Your task to perform on an android device: turn vacation reply on in the gmail app Image 0: 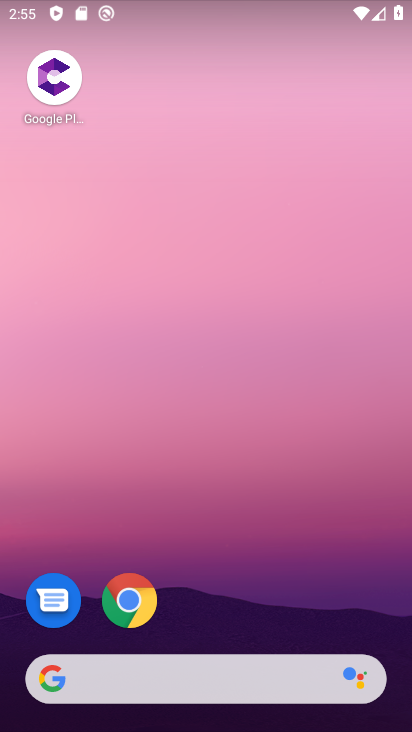
Step 0: drag from (325, 676) to (112, 12)
Your task to perform on an android device: turn vacation reply on in the gmail app Image 1: 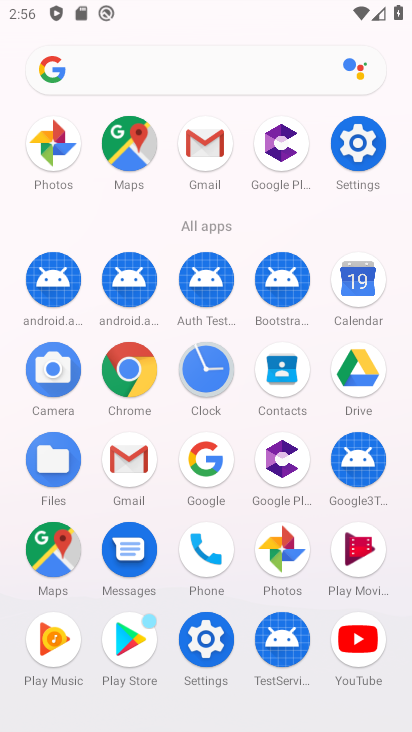
Step 1: click (131, 451)
Your task to perform on an android device: turn vacation reply on in the gmail app Image 2: 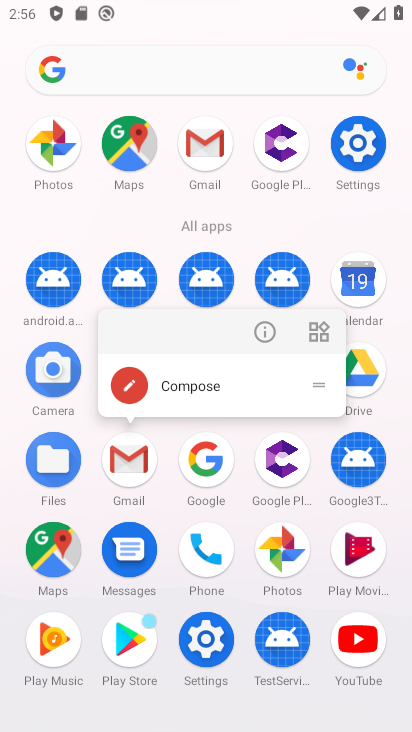
Step 2: click (136, 451)
Your task to perform on an android device: turn vacation reply on in the gmail app Image 3: 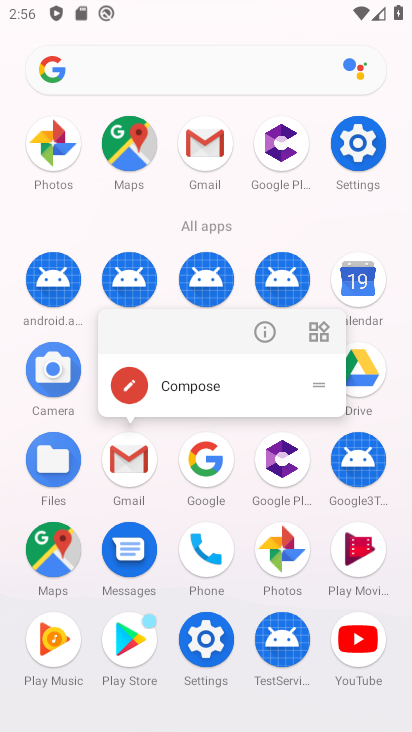
Step 3: click (133, 450)
Your task to perform on an android device: turn vacation reply on in the gmail app Image 4: 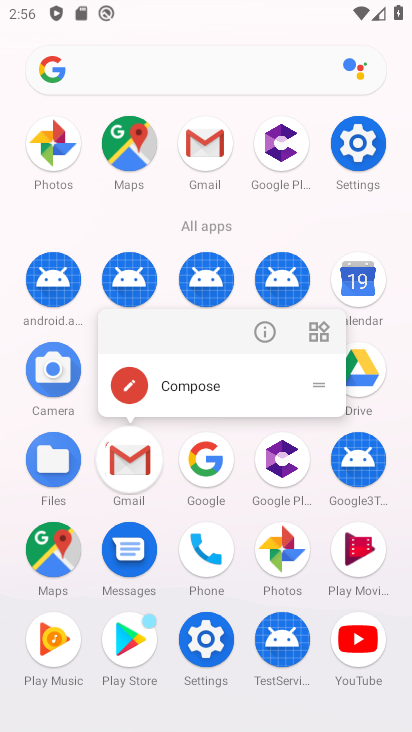
Step 4: click (134, 438)
Your task to perform on an android device: turn vacation reply on in the gmail app Image 5: 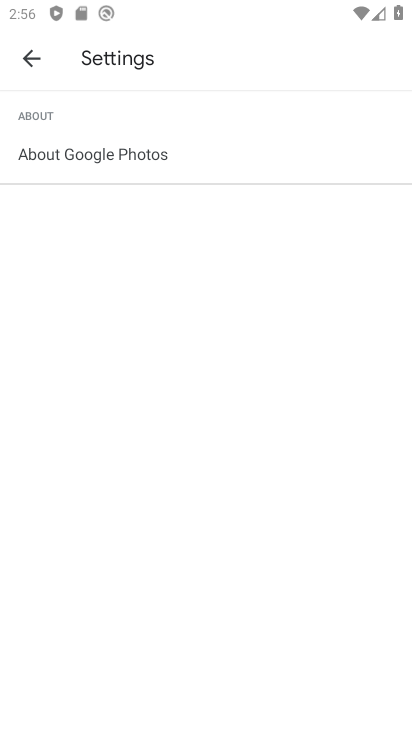
Step 5: drag from (141, 458) to (115, 416)
Your task to perform on an android device: turn vacation reply on in the gmail app Image 6: 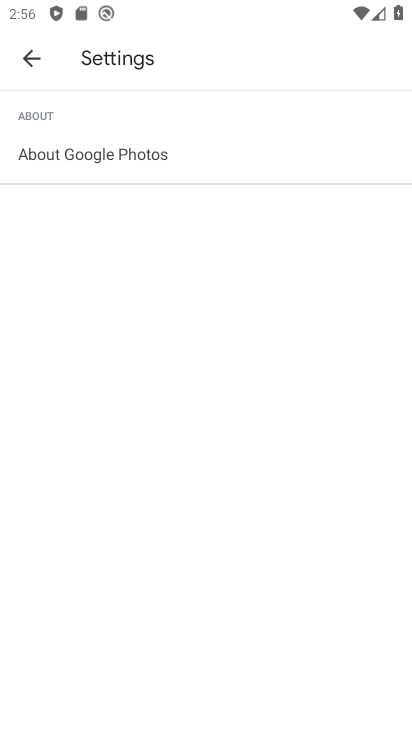
Step 6: click (27, 56)
Your task to perform on an android device: turn vacation reply on in the gmail app Image 7: 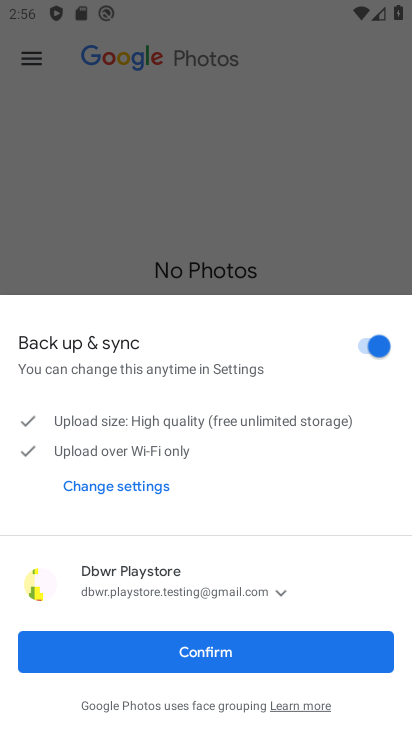
Step 7: click (224, 647)
Your task to perform on an android device: turn vacation reply on in the gmail app Image 8: 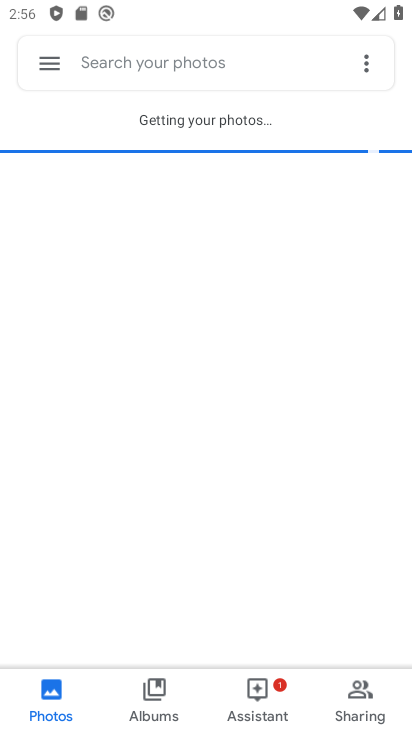
Step 8: press home button
Your task to perform on an android device: turn vacation reply on in the gmail app Image 9: 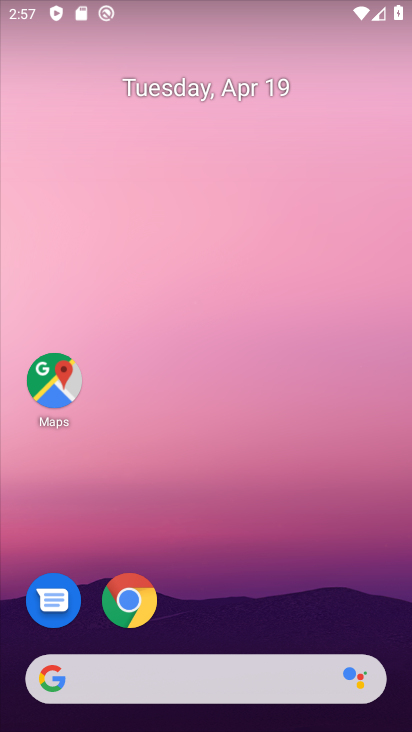
Step 9: drag from (251, 659) to (106, 235)
Your task to perform on an android device: turn vacation reply on in the gmail app Image 10: 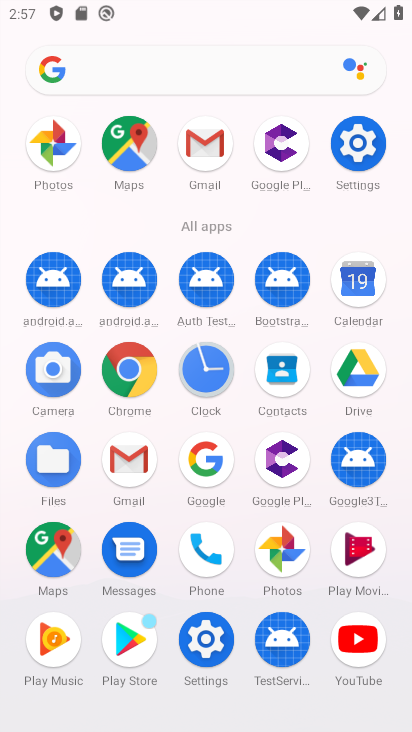
Step 10: click (129, 458)
Your task to perform on an android device: turn vacation reply on in the gmail app Image 11: 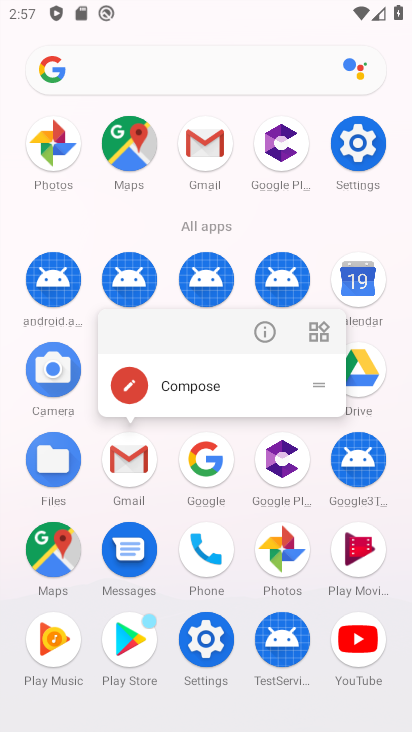
Step 11: click (133, 455)
Your task to perform on an android device: turn vacation reply on in the gmail app Image 12: 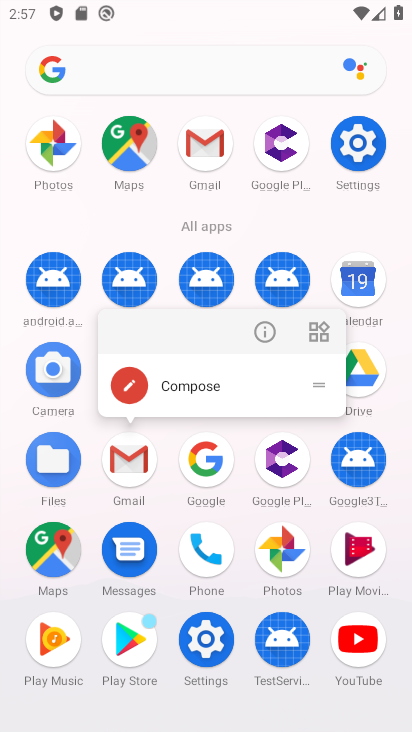
Step 12: click (139, 461)
Your task to perform on an android device: turn vacation reply on in the gmail app Image 13: 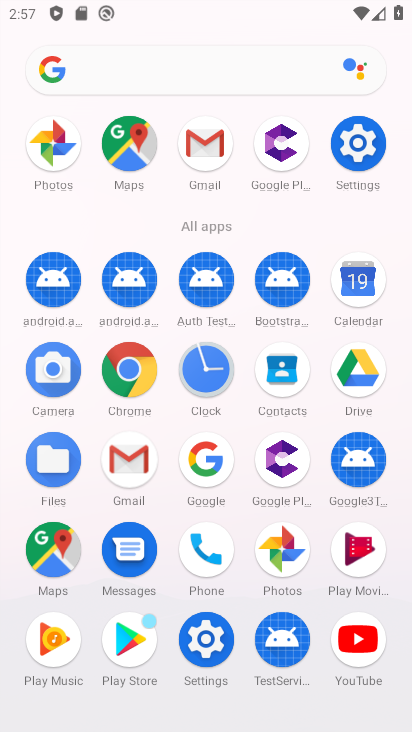
Step 13: click (130, 465)
Your task to perform on an android device: turn vacation reply on in the gmail app Image 14: 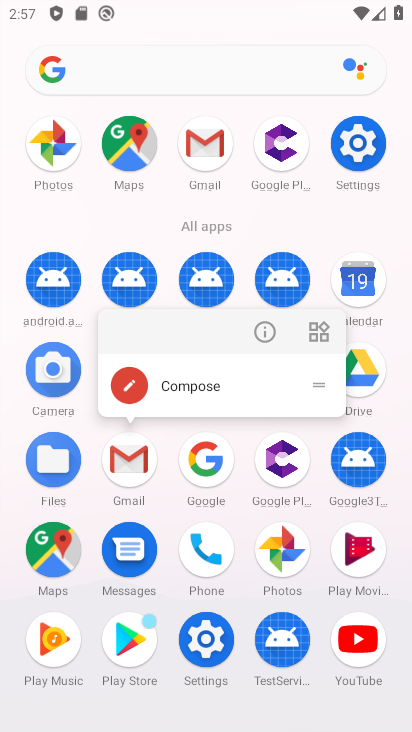
Step 14: click (133, 456)
Your task to perform on an android device: turn vacation reply on in the gmail app Image 15: 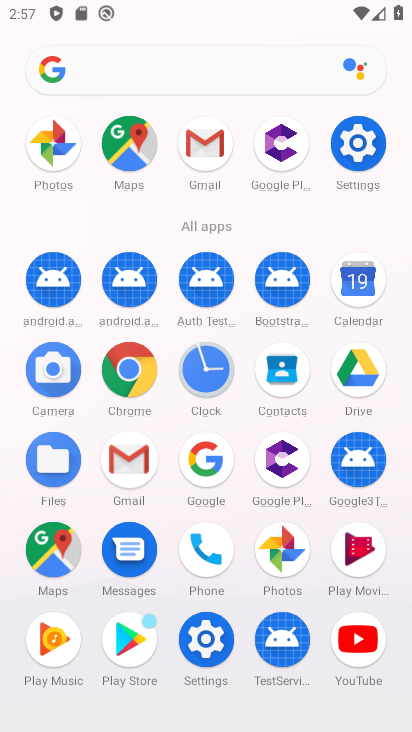
Step 15: click (133, 456)
Your task to perform on an android device: turn vacation reply on in the gmail app Image 16: 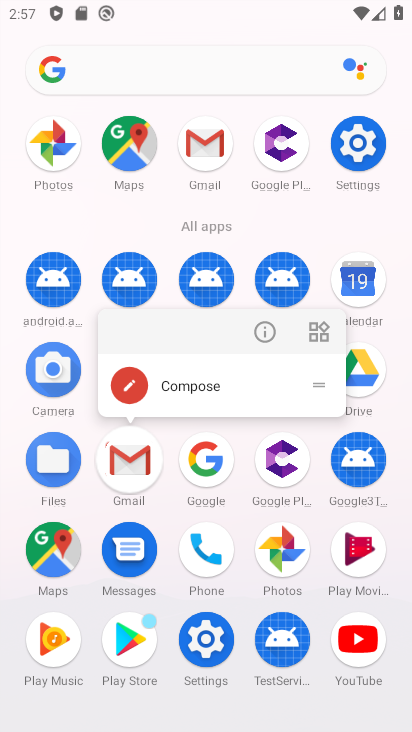
Step 16: click (133, 456)
Your task to perform on an android device: turn vacation reply on in the gmail app Image 17: 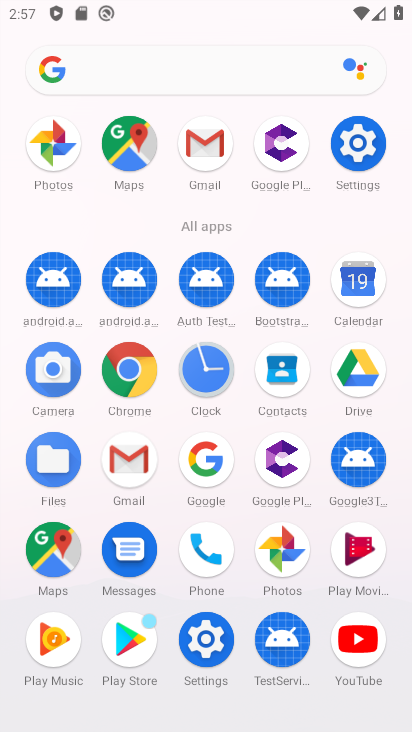
Step 17: click (133, 456)
Your task to perform on an android device: turn vacation reply on in the gmail app Image 18: 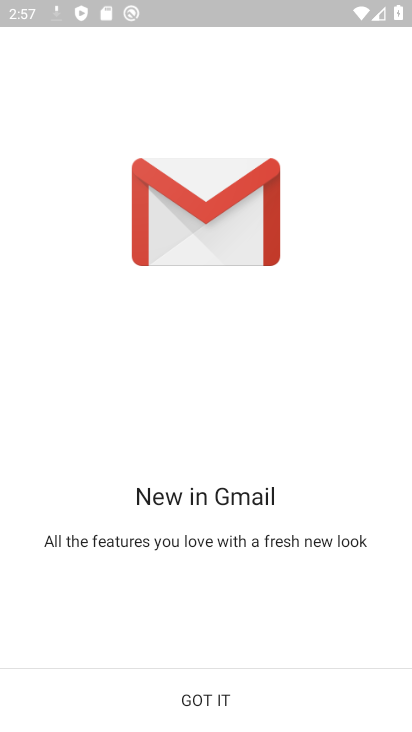
Step 18: click (200, 697)
Your task to perform on an android device: turn vacation reply on in the gmail app Image 19: 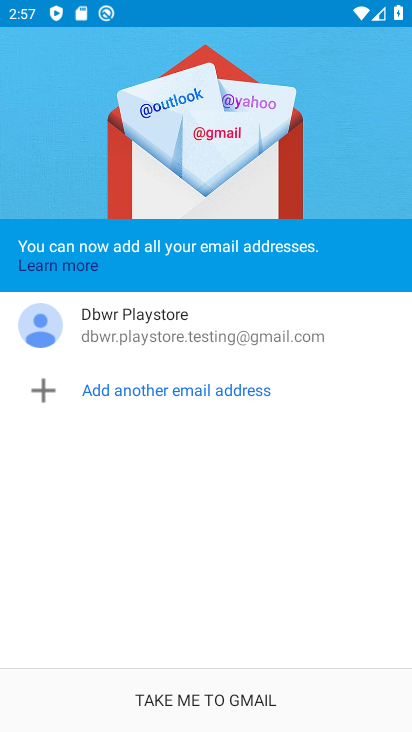
Step 19: click (224, 702)
Your task to perform on an android device: turn vacation reply on in the gmail app Image 20: 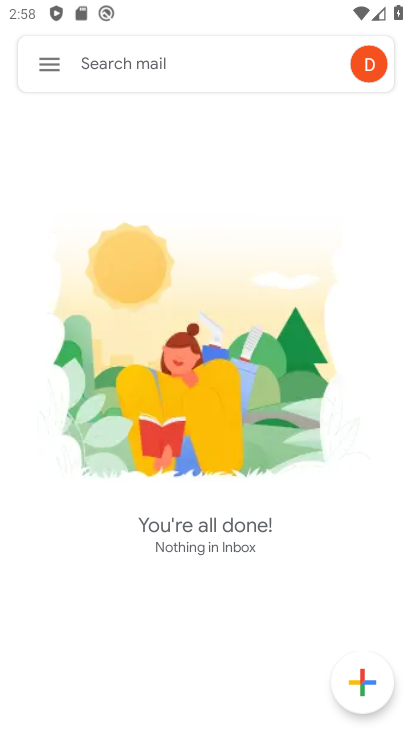
Step 20: click (45, 60)
Your task to perform on an android device: turn vacation reply on in the gmail app Image 21: 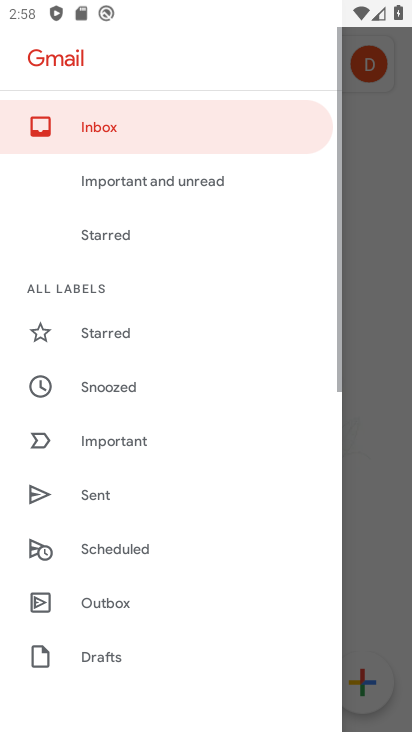
Step 21: click (45, 60)
Your task to perform on an android device: turn vacation reply on in the gmail app Image 22: 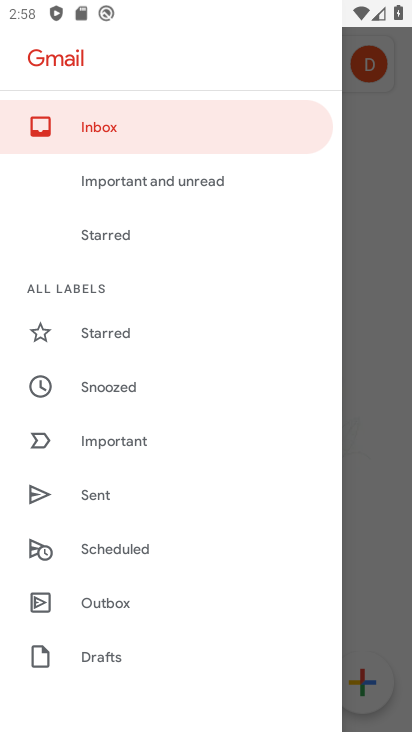
Step 22: drag from (172, 531) to (127, 89)
Your task to perform on an android device: turn vacation reply on in the gmail app Image 23: 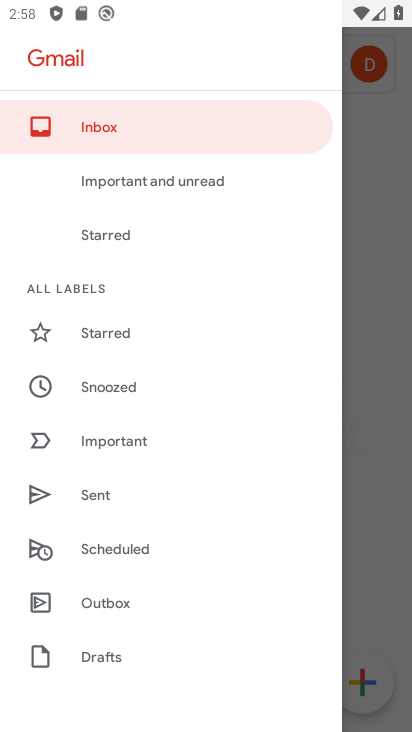
Step 23: drag from (138, 581) to (100, 299)
Your task to perform on an android device: turn vacation reply on in the gmail app Image 24: 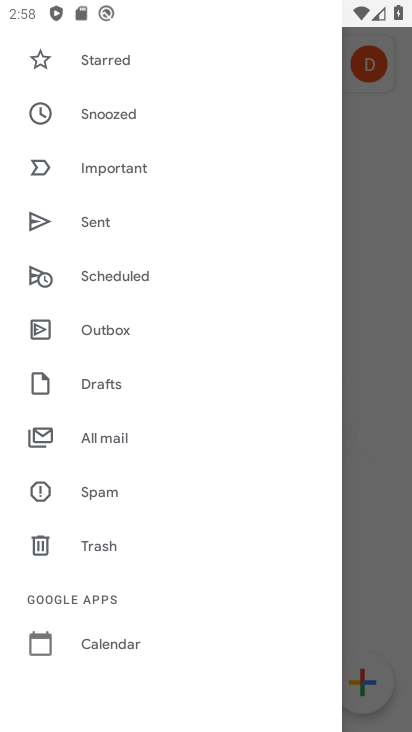
Step 24: drag from (178, 561) to (146, 253)
Your task to perform on an android device: turn vacation reply on in the gmail app Image 25: 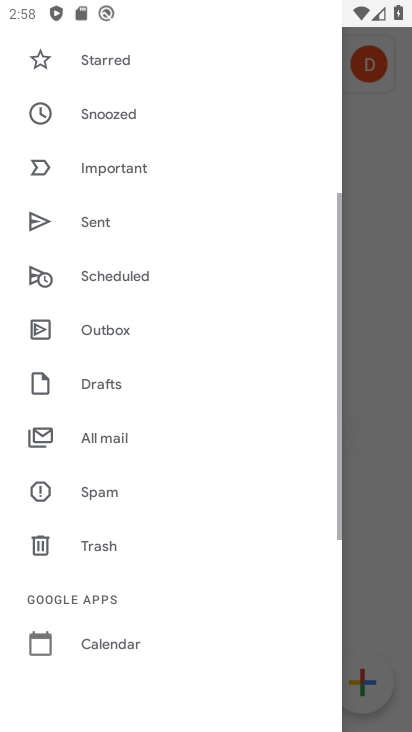
Step 25: drag from (187, 614) to (169, 251)
Your task to perform on an android device: turn vacation reply on in the gmail app Image 26: 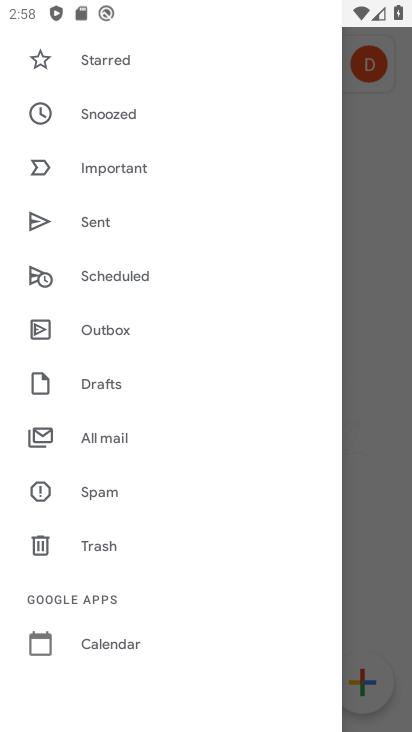
Step 26: drag from (182, 628) to (116, 182)
Your task to perform on an android device: turn vacation reply on in the gmail app Image 27: 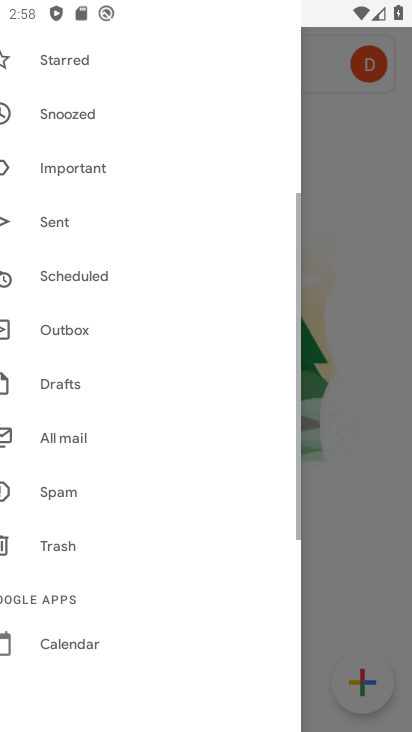
Step 27: drag from (183, 462) to (192, 169)
Your task to perform on an android device: turn vacation reply on in the gmail app Image 28: 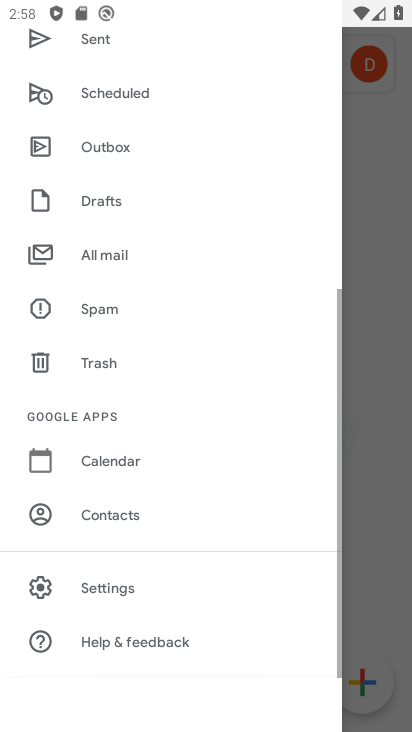
Step 28: drag from (149, 412) to (144, 303)
Your task to perform on an android device: turn vacation reply on in the gmail app Image 29: 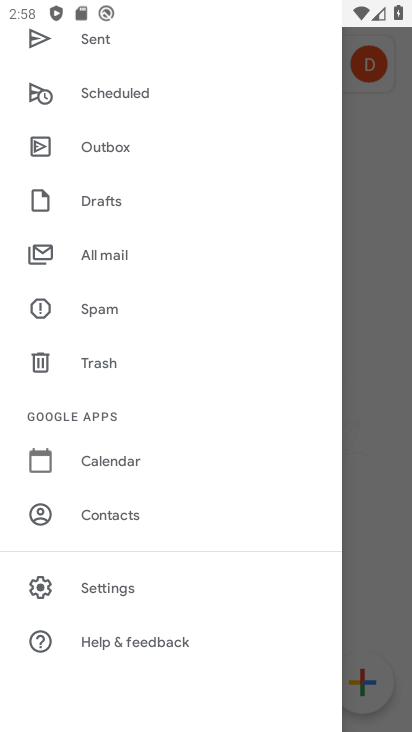
Step 29: click (112, 588)
Your task to perform on an android device: turn vacation reply on in the gmail app Image 30: 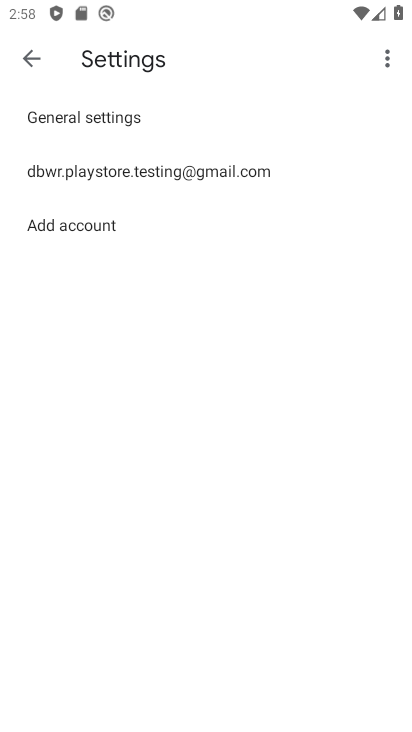
Step 30: click (78, 167)
Your task to perform on an android device: turn vacation reply on in the gmail app Image 31: 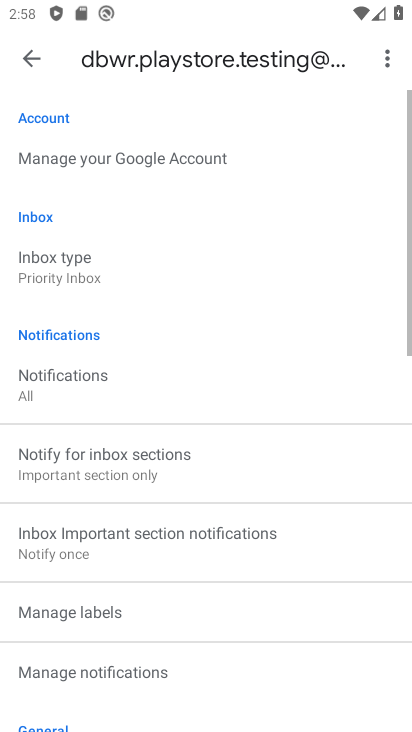
Step 31: drag from (124, 622) to (98, 206)
Your task to perform on an android device: turn vacation reply on in the gmail app Image 32: 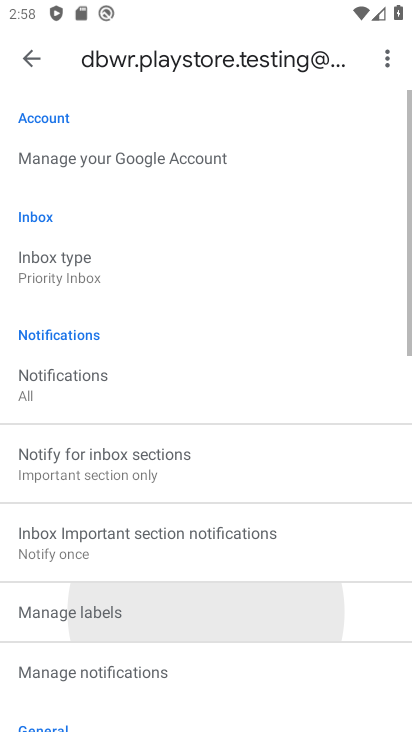
Step 32: drag from (161, 566) to (140, 203)
Your task to perform on an android device: turn vacation reply on in the gmail app Image 33: 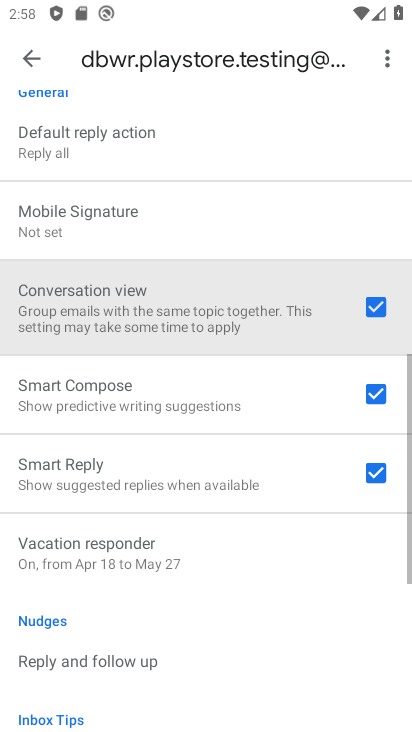
Step 33: drag from (221, 358) to (181, 56)
Your task to perform on an android device: turn vacation reply on in the gmail app Image 34: 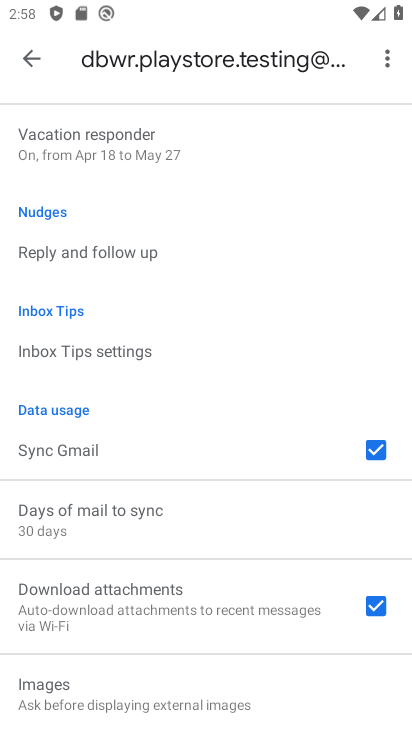
Step 34: drag from (170, 489) to (162, 156)
Your task to perform on an android device: turn vacation reply on in the gmail app Image 35: 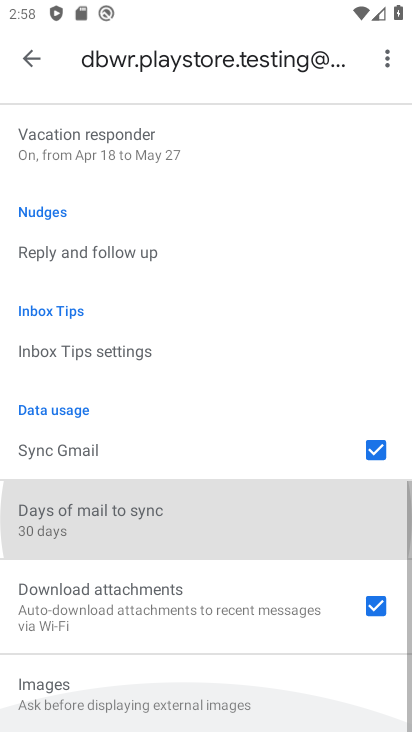
Step 35: click (150, 400)
Your task to perform on an android device: turn vacation reply on in the gmail app Image 36: 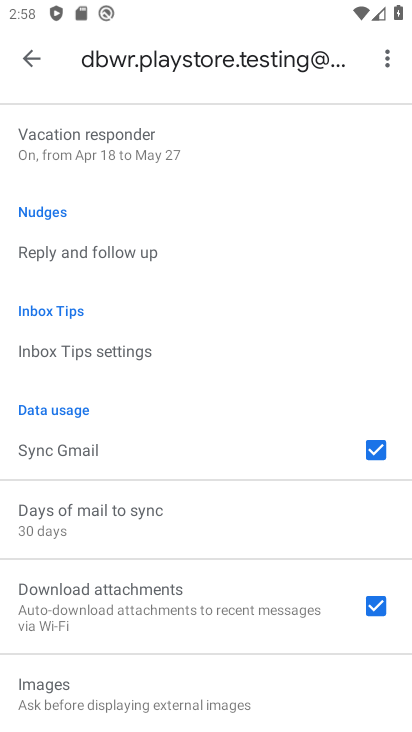
Step 36: click (115, 262)
Your task to perform on an android device: turn vacation reply on in the gmail app Image 37: 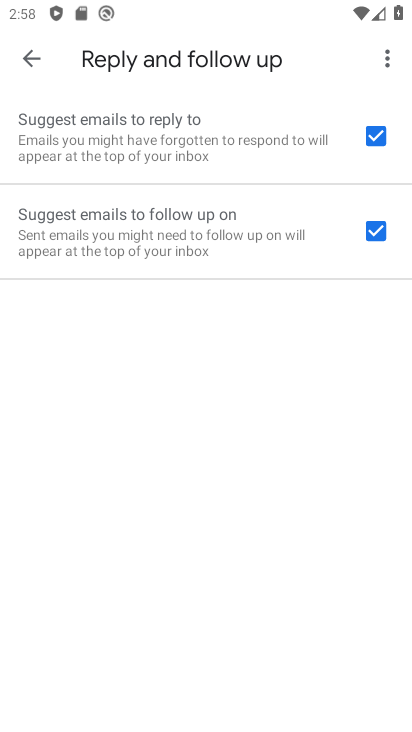
Step 37: drag from (199, 594) to (183, 130)
Your task to perform on an android device: turn vacation reply on in the gmail app Image 38: 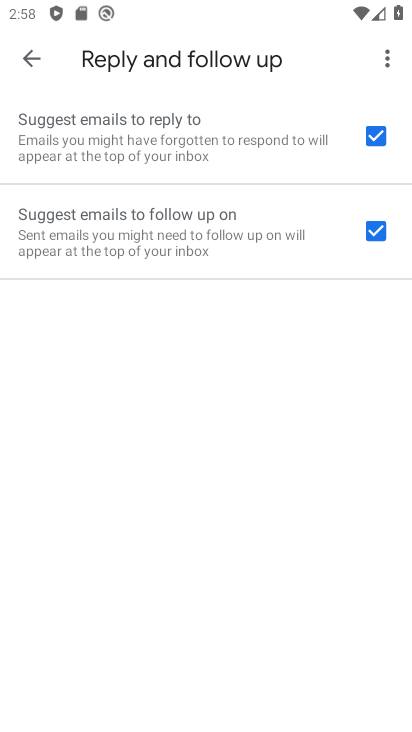
Step 38: click (30, 58)
Your task to perform on an android device: turn vacation reply on in the gmail app Image 39: 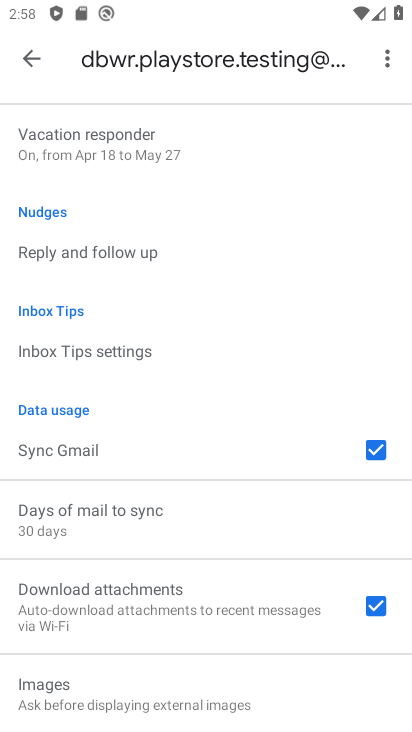
Step 39: click (26, 53)
Your task to perform on an android device: turn vacation reply on in the gmail app Image 40: 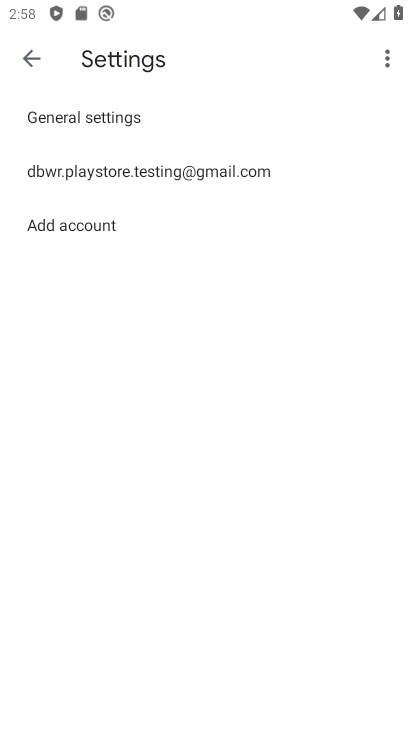
Step 40: click (82, 178)
Your task to perform on an android device: turn vacation reply on in the gmail app Image 41: 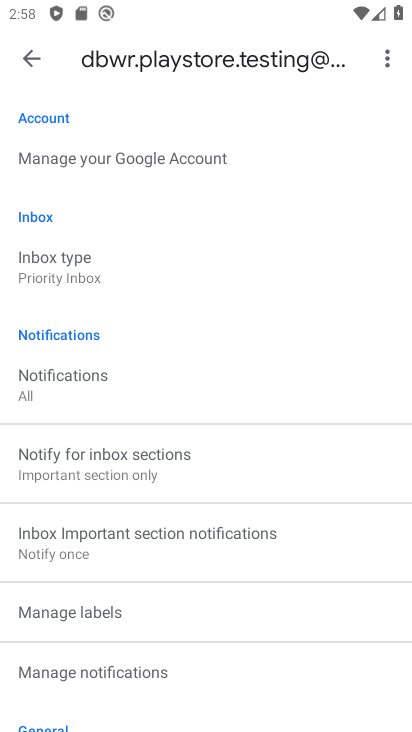
Step 41: drag from (122, 570) to (100, 181)
Your task to perform on an android device: turn vacation reply on in the gmail app Image 42: 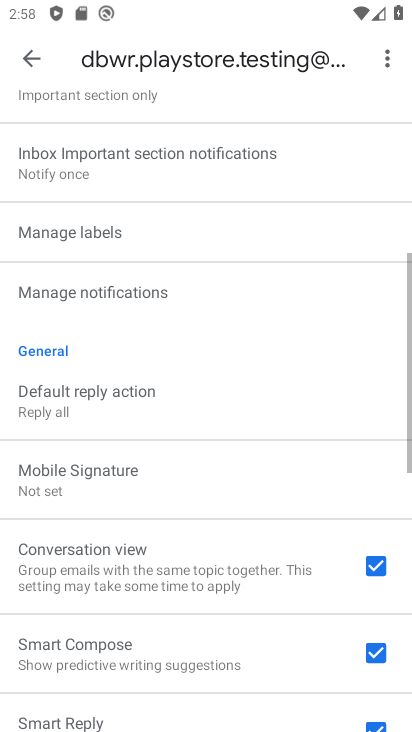
Step 42: drag from (229, 466) to (196, 226)
Your task to perform on an android device: turn vacation reply on in the gmail app Image 43: 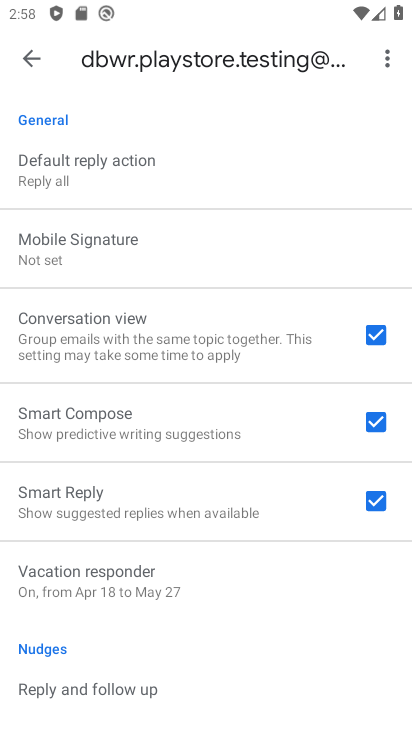
Step 43: click (111, 578)
Your task to perform on an android device: turn vacation reply on in the gmail app Image 44: 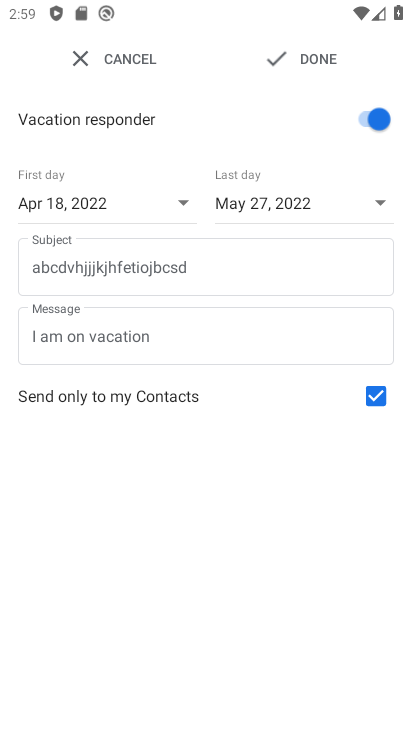
Step 44: task complete